Your task to perform on an android device: Is it going to rain today? Image 0: 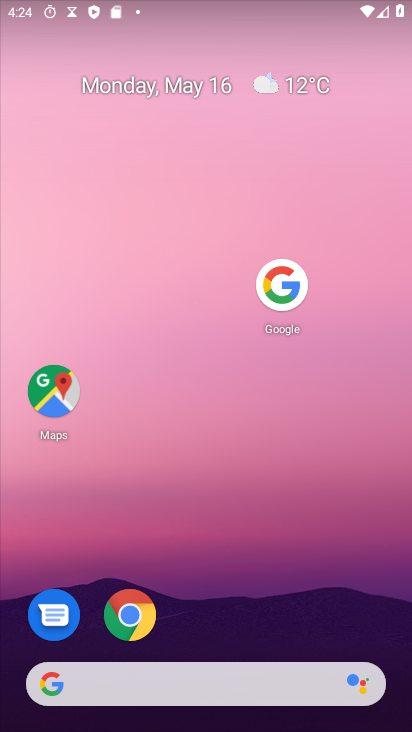
Step 0: drag from (204, 662) to (191, 12)
Your task to perform on an android device: Is it going to rain today? Image 1: 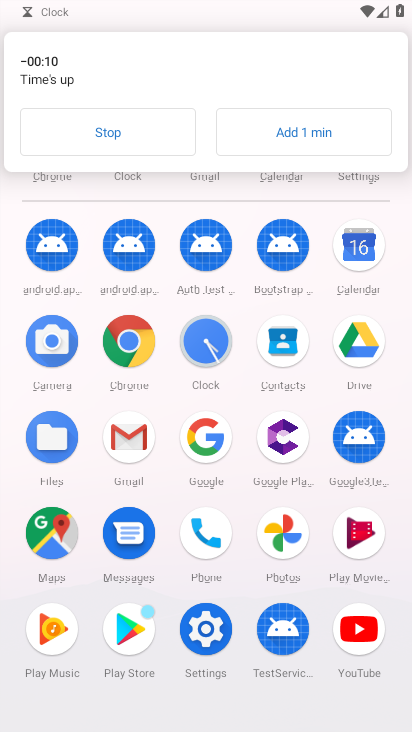
Step 1: click (200, 450)
Your task to perform on an android device: Is it going to rain today? Image 2: 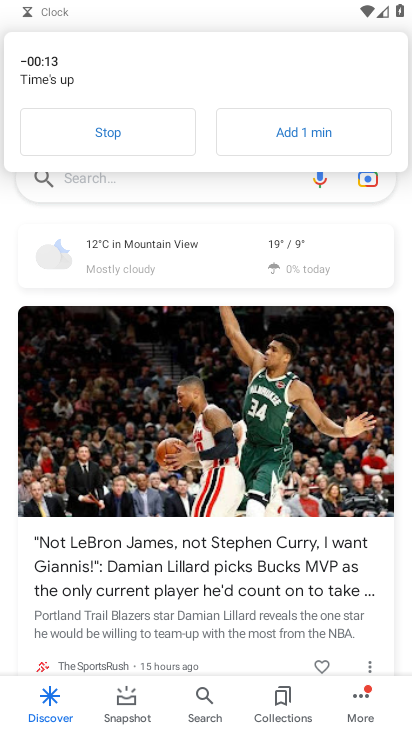
Step 2: click (111, 140)
Your task to perform on an android device: Is it going to rain today? Image 3: 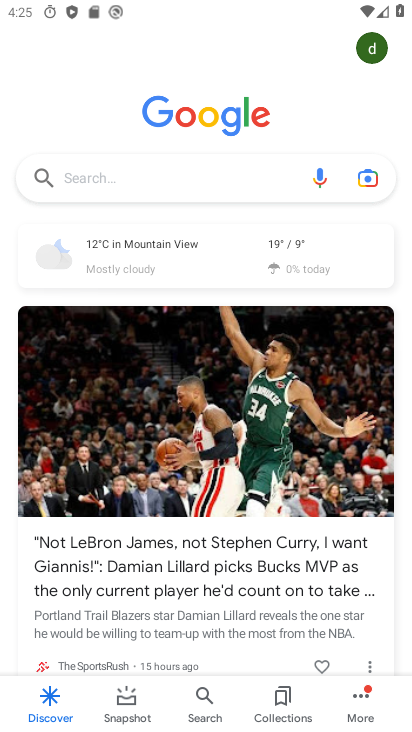
Step 3: click (134, 238)
Your task to perform on an android device: Is it going to rain today? Image 4: 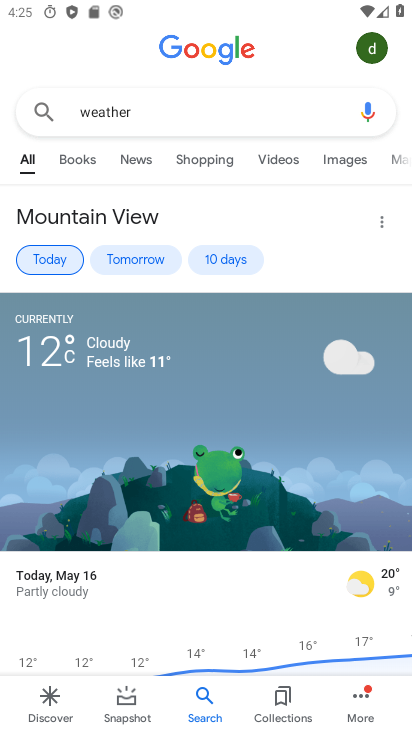
Step 4: task complete